Your task to perform on an android device: Go to sound settings Image 0: 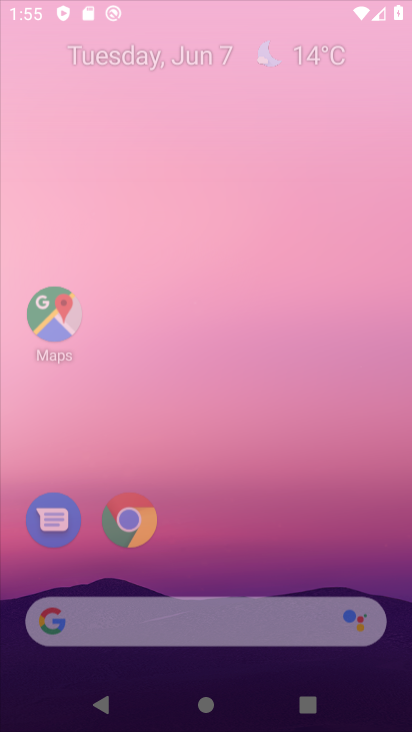
Step 0: click (243, 188)
Your task to perform on an android device: Go to sound settings Image 1: 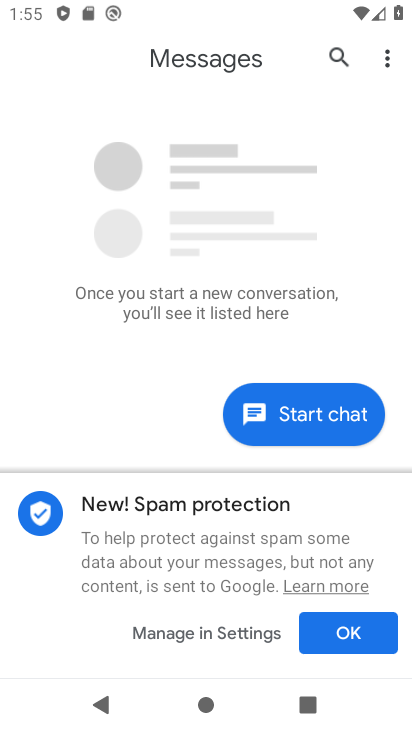
Step 1: press home button
Your task to perform on an android device: Go to sound settings Image 2: 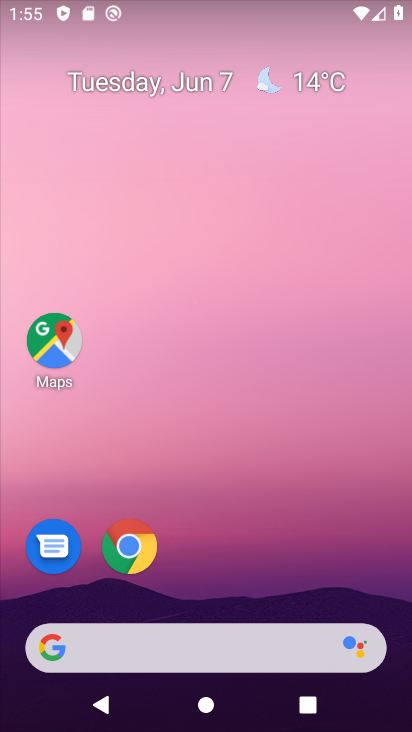
Step 2: drag from (251, 598) to (254, 264)
Your task to perform on an android device: Go to sound settings Image 3: 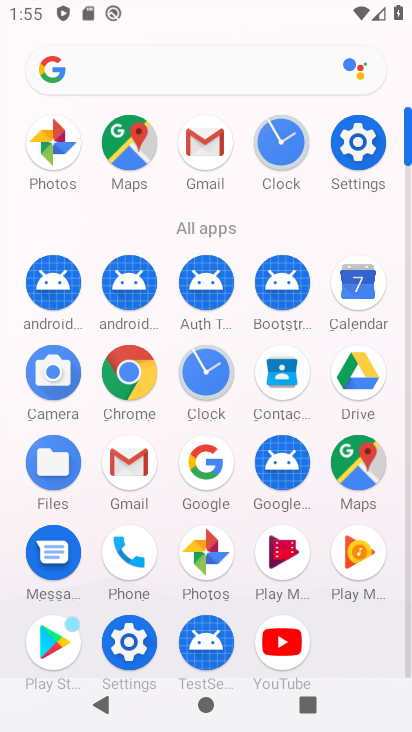
Step 3: click (363, 177)
Your task to perform on an android device: Go to sound settings Image 4: 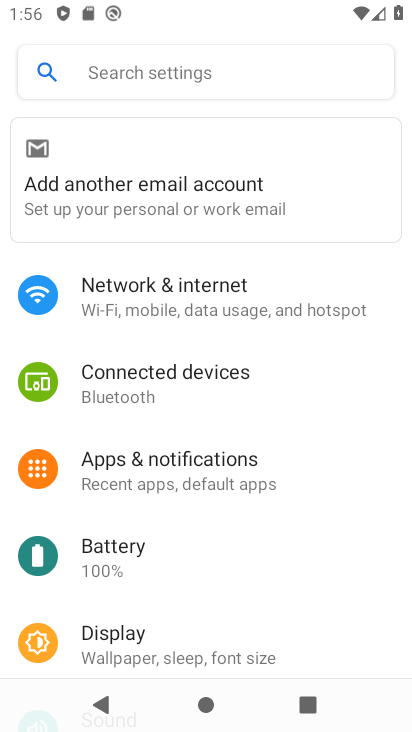
Step 4: drag from (155, 626) to (199, 233)
Your task to perform on an android device: Go to sound settings Image 5: 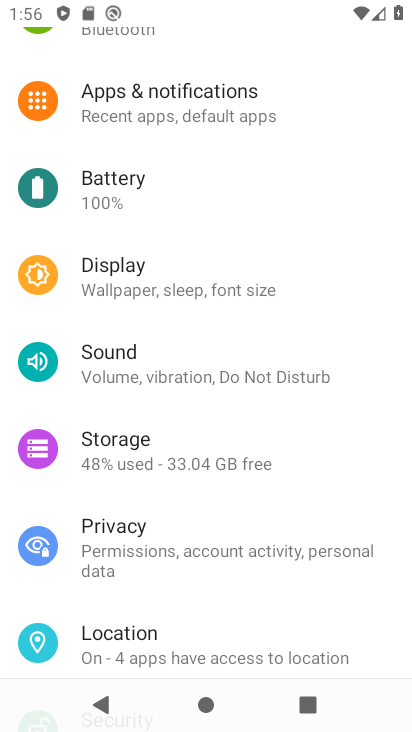
Step 5: click (116, 374)
Your task to perform on an android device: Go to sound settings Image 6: 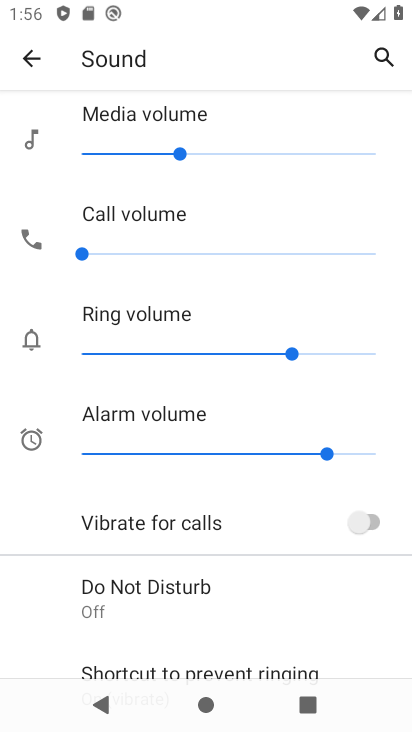
Step 6: task complete